Your task to perform on an android device: Toggle the flashlight Image 0: 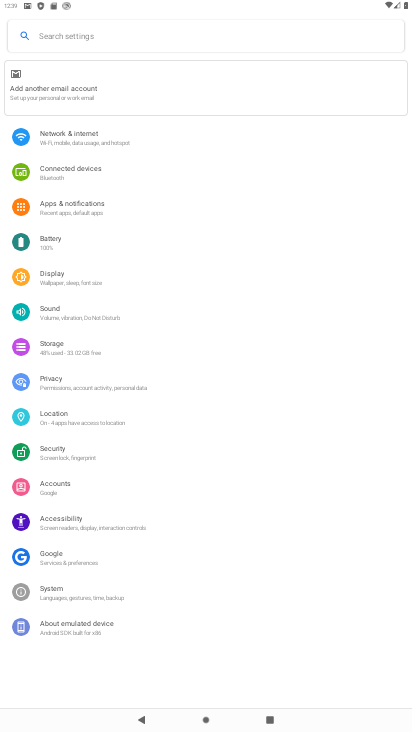
Step 0: press home button
Your task to perform on an android device: Toggle the flashlight Image 1: 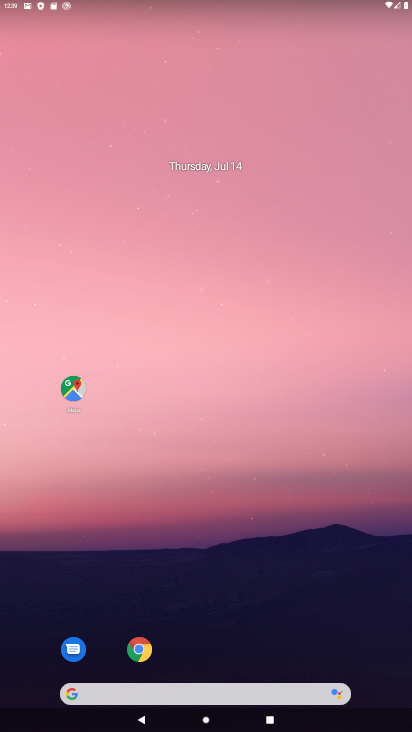
Step 1: task complete